Your task to perform on an android device: turn off airplane mode Image 0: 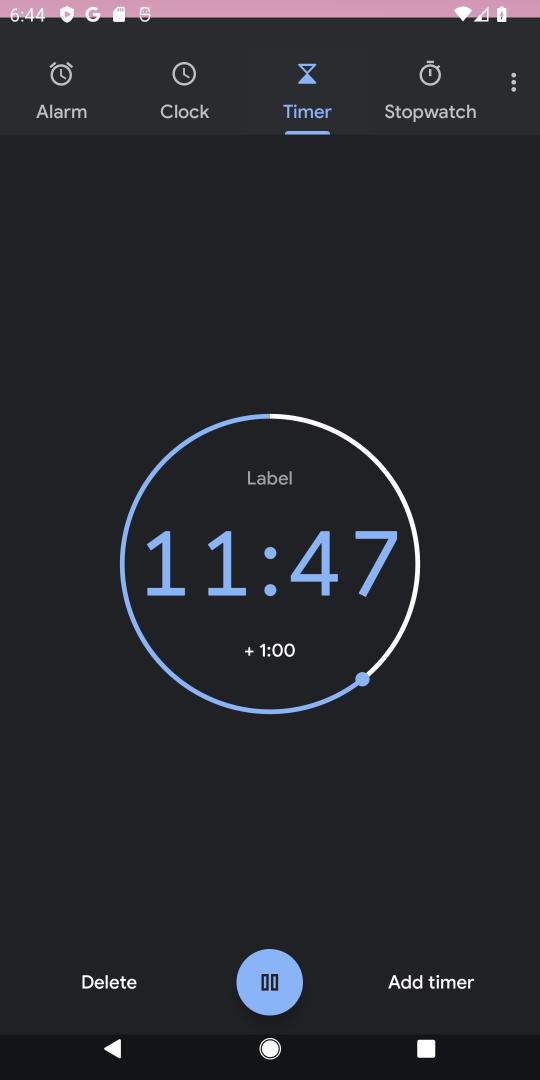
Step 0: press home button
Your task to perform on an android device: turn off airplane mode Image 1: 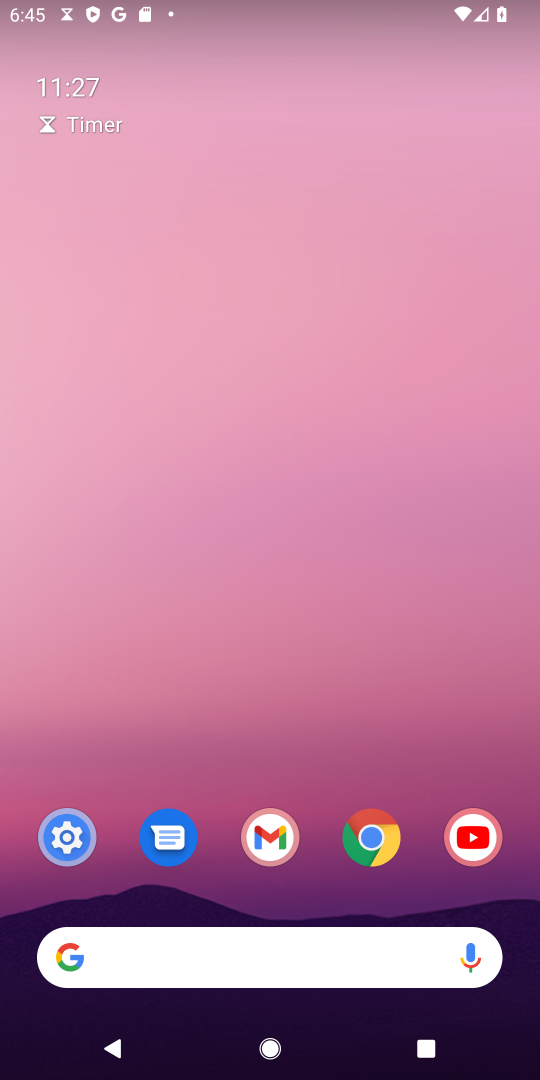
Step 1: task complete